Your task to perform on an android device: Go to sound settings Image 0: 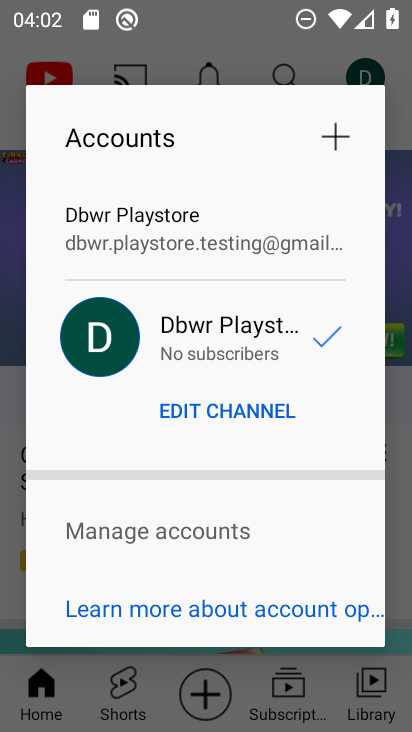
Step 0: press home button
Your task to perform on an android device: Go to sound settings Image 1: 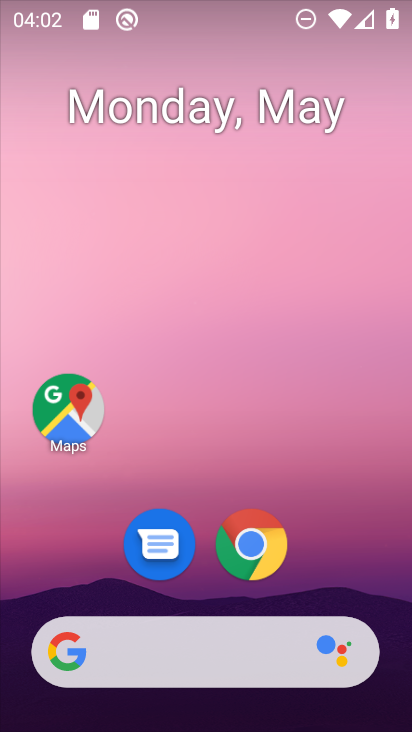
Step 1: drag from (377, 569) to (387, 213)
Your task to perform on an android device: Go to sound settings Image 2: 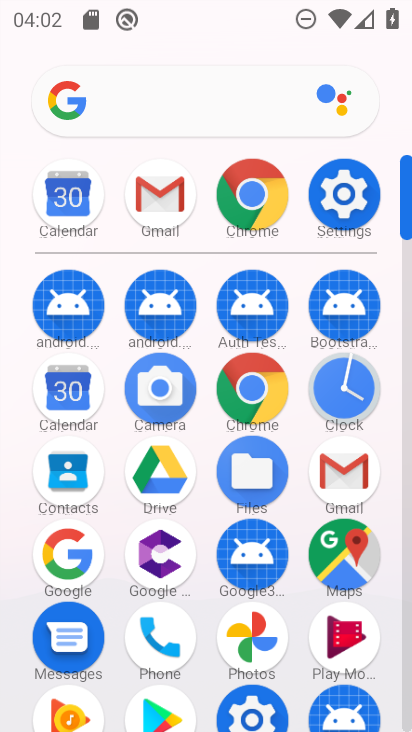
Step 2: click (354, 220)
Your task to perform on an android device: Go to sound settings Image 3: 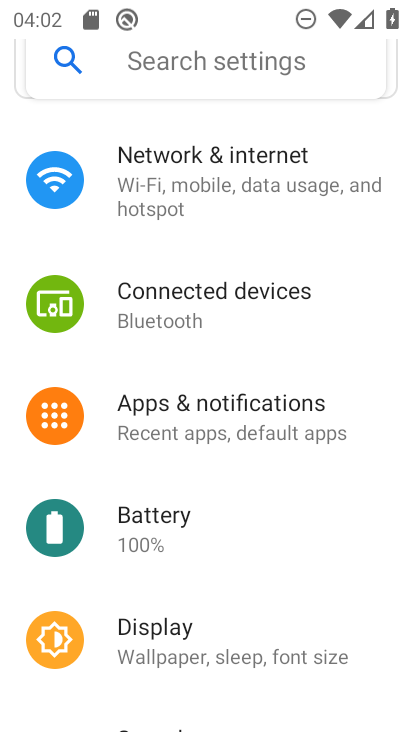
Step 3: drag from (346, 555) to (352, 463)
Your task to perform on an android device: Go to sound settings Image 4: 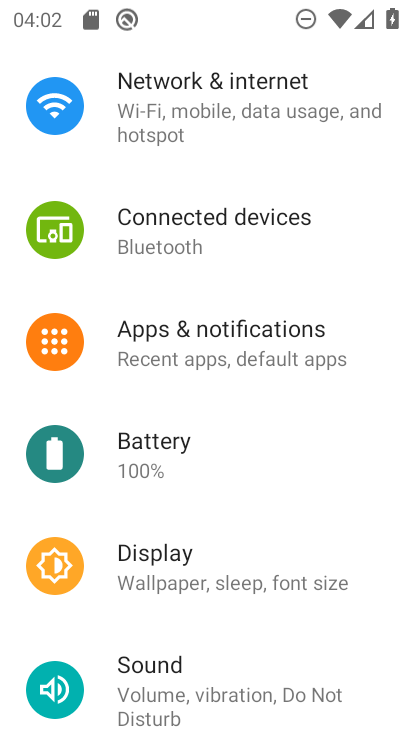
Step 4: drag from (362, 605) to (355, 488)
Your task to perform on an android device: Go to sound settings Image 5: 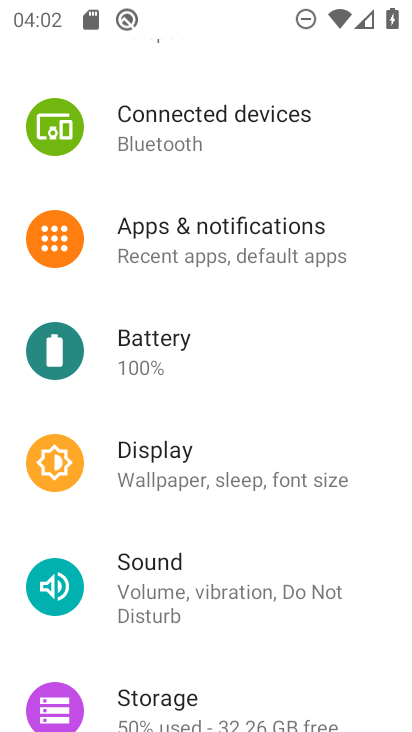
Step 5: drag from (348, 595) to (356, 484)
Your task to perform on an android device: Go to sound settings Image 6: 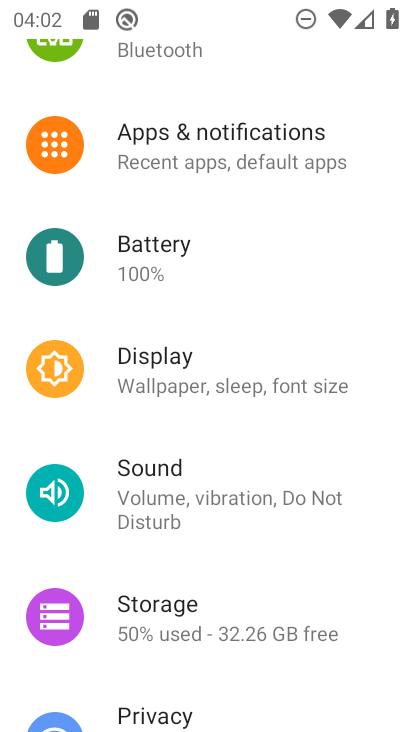
Step 6: drag from (360, 613) to (367, 496)
Your task to perform on an android device: Go to sound settings Image 7: 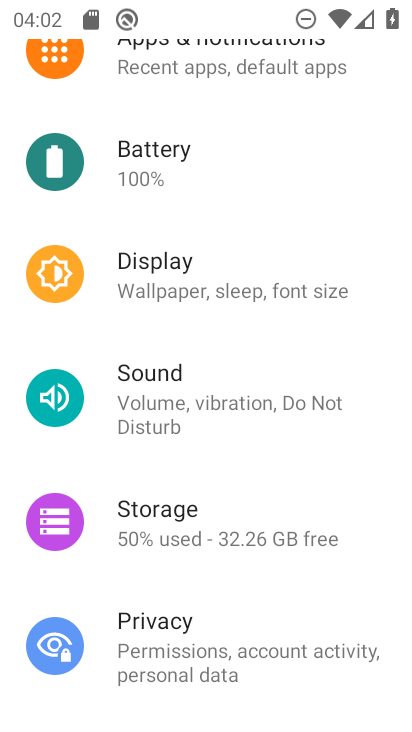
Step 7: click (319, 428)
Your task to perform on an android device: Go to sound settings Image 8: 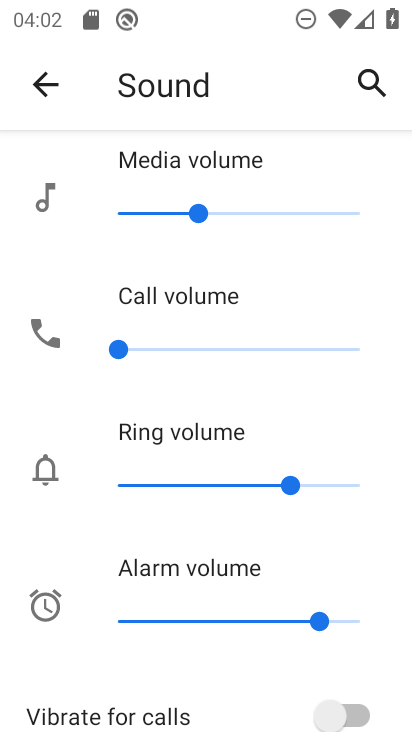
Step 8: task complete